Your task to perform on an android device: What's on my calendar today? Image 0: 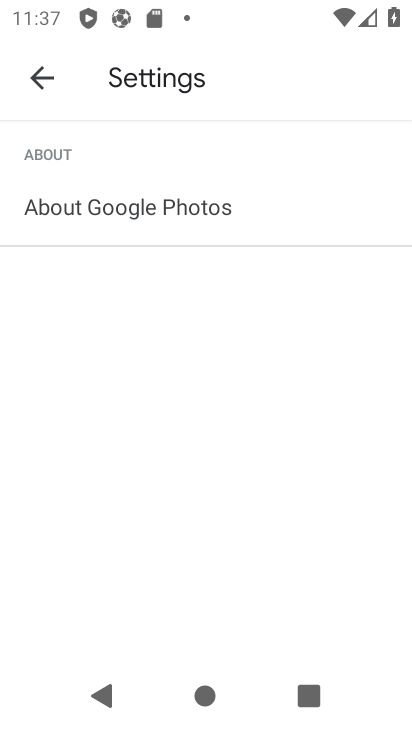
Step 0: press home button
Your task to perform on an android device: What's on my calendar today? Image 1: 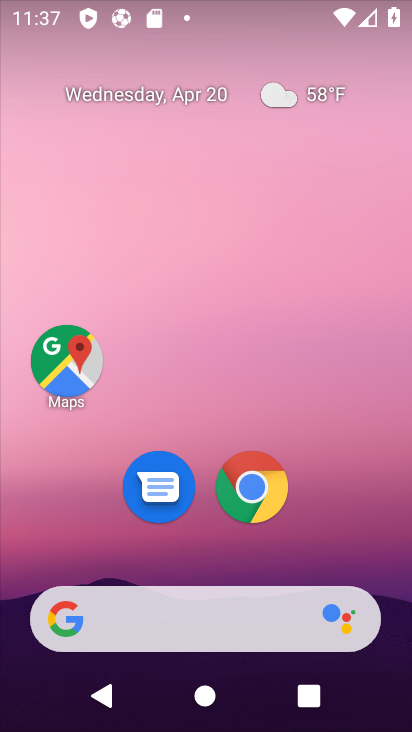
Step 1: drag from (392, 566) to (377, 16)
Your task to perform on an android device: What's on my calendar today? Image 2: 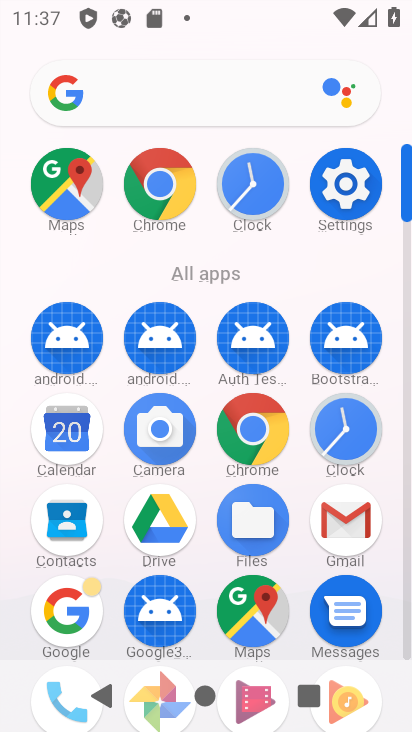
Step 2: click (67, 430)
Your task to perform on an android device: What's on my calendar today? Image 3: 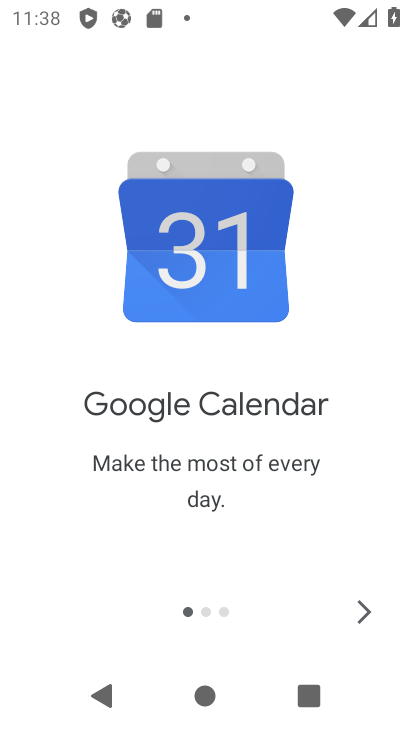
Step 3: click (378, 615)
Your task to perform on an android device: What's on my calendar today? Image 4: 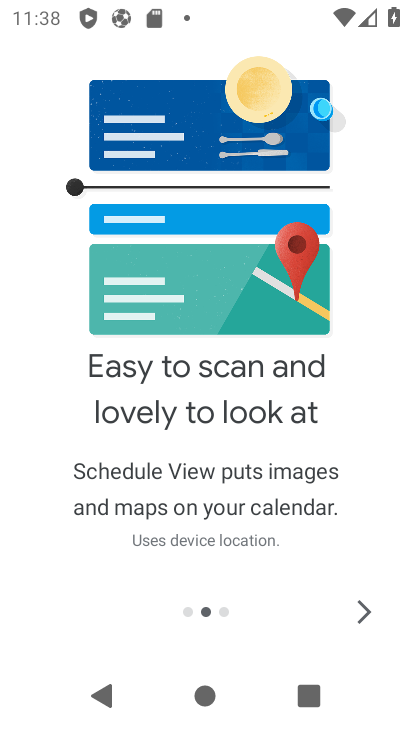
Step 4: click (378, 615)
Your task to perform on an android device: What's on my calendar today? Image 5: 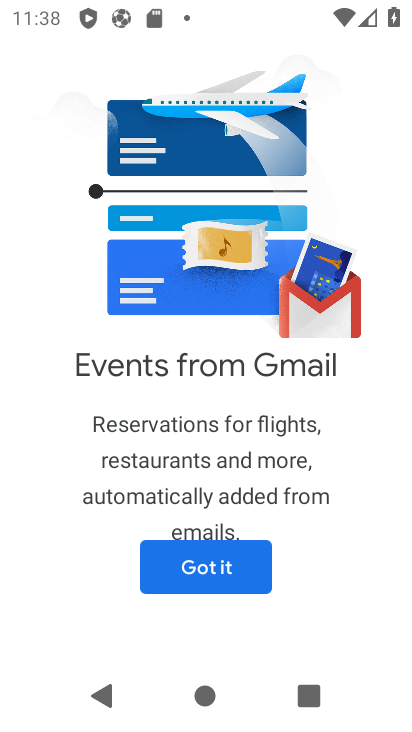
Step 5: click (185, 568)
Your task to perform on an android device: What's on my calendar today? Image 6: 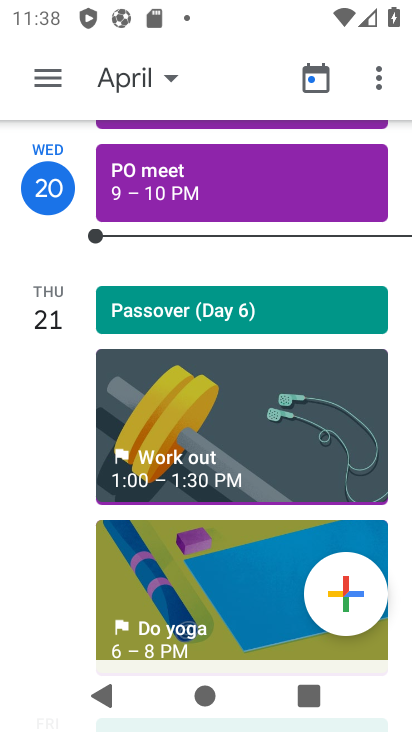
Step 6: click (162, 83)
Your task to perform on an android device: What's on my calendar today? Image 7: 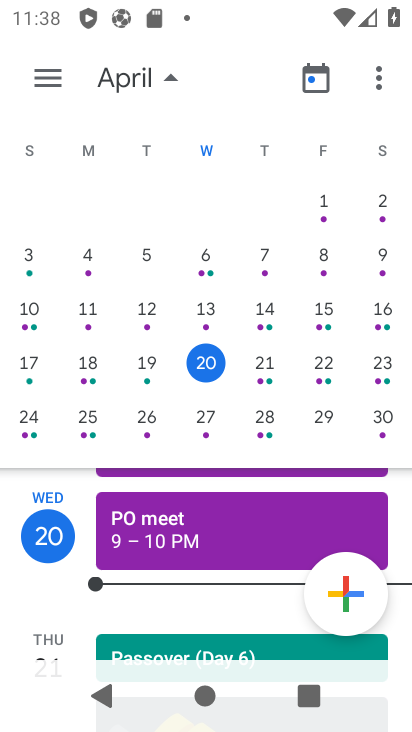
Step 7: click (203, 361)
Your task to perform on an android device: What's on my calendar today? Image 8: 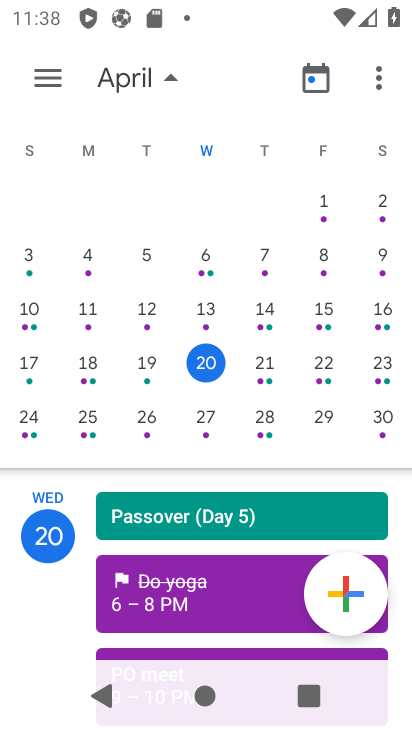
Step 8: click (191, 581)
Your task to perform on an android device: What's on my calendar today? Image 9: 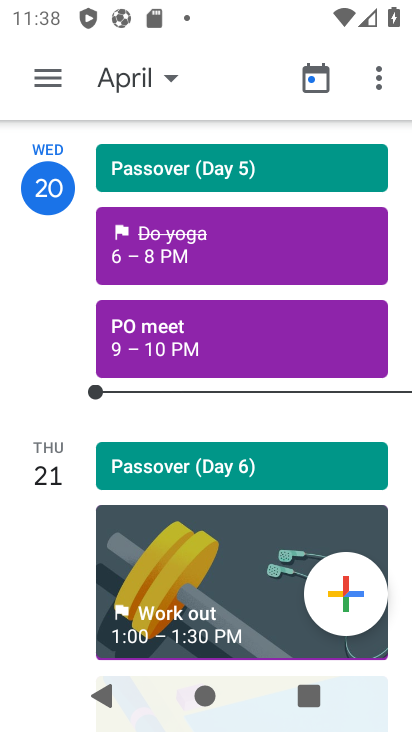
Step 9: click (193, 263)
Your task to perform on an android device: What's on my calendar today? Image 10: 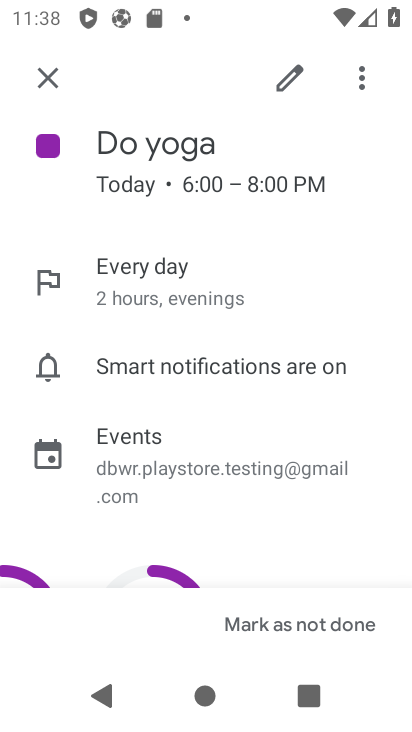
Step 10: task complete